Your task to perform on an android device: turn off sleep mode Image 0: 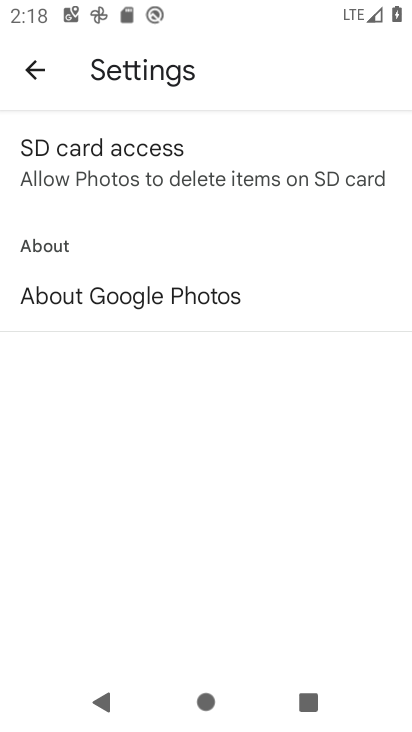
Step 0: press home button
Your task to perform on an android device: turn off sleep mode Image 1: 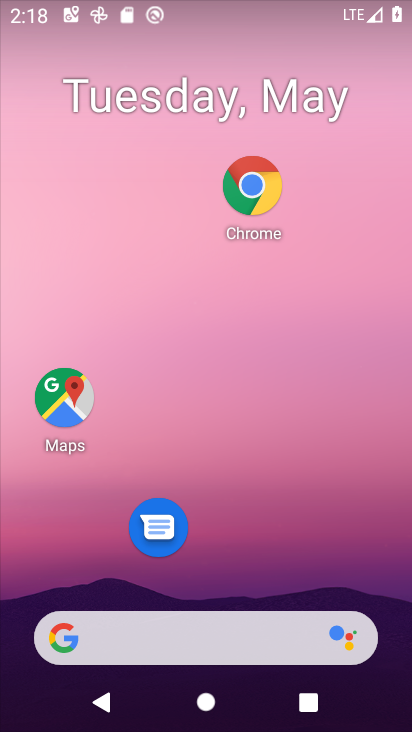
Step 1: drag from (279, 515) to (126, 74)
Your task to perform on an android device: turn off sleep mode Image 2: 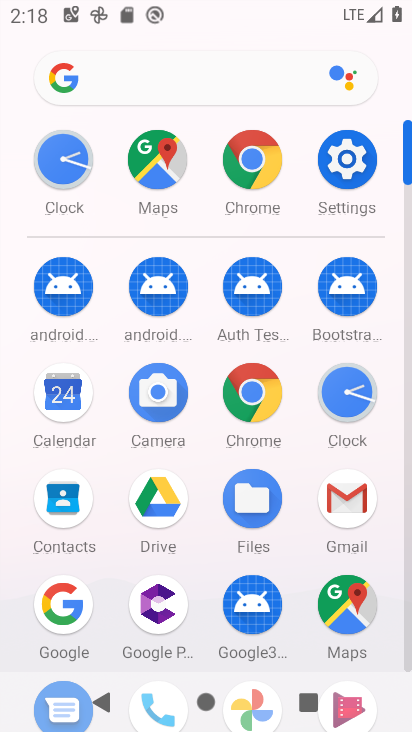
Step 2: click (351, 164)
Your task to perform on an android device: turn off sleep mode Image 3: 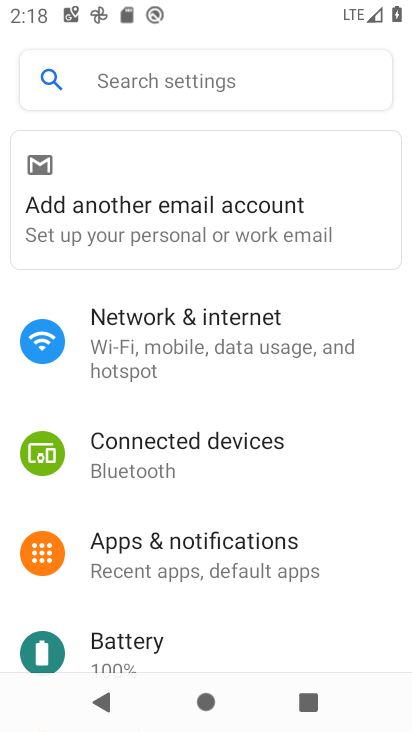
Step 3: drag from (200, 495) to (108, 88)
Your task to perform on an android device: turn off sleep mode Image 4: 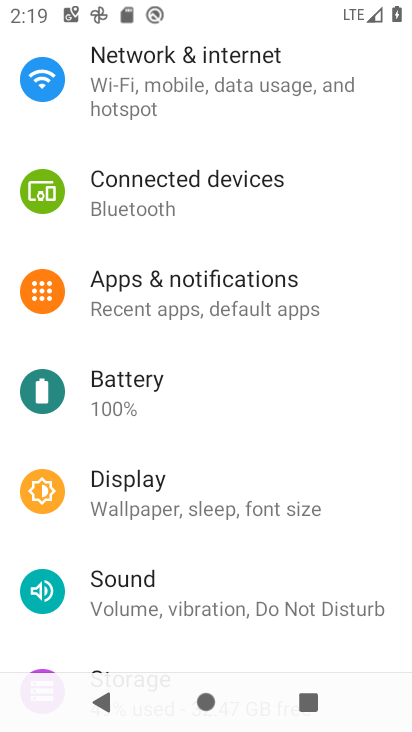
Step 4: click (124, 485)
Your task to perform on an android device: turn off sleep mode Image 5: 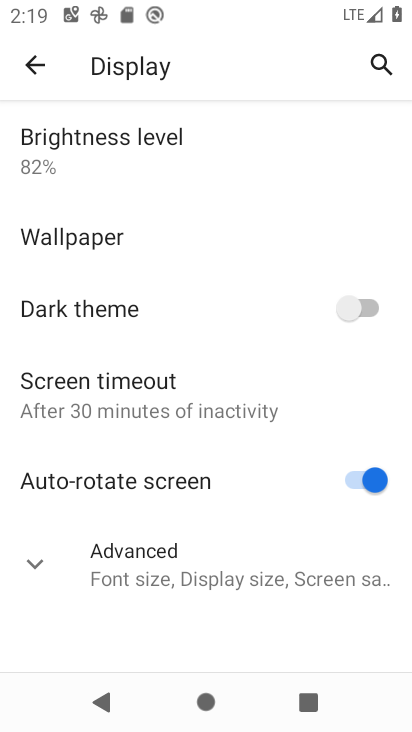
Step 5: drag from (256, 461) to (201, 231)
Your task to perform on an android device: turn off sleep mode Image 6: 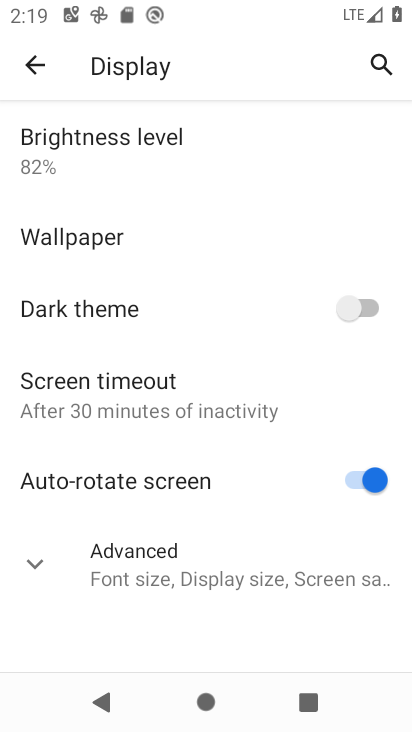
Step 6: click (30, 69)
Your task to perform on an android device: turn off sleep mode Image 7: 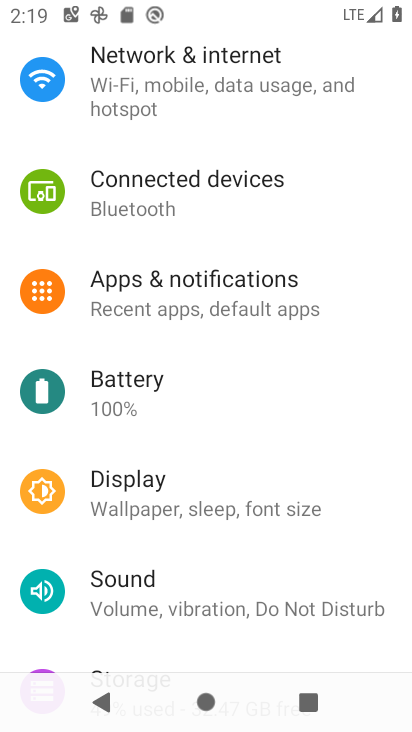
Step 7: task complete